Your task to perform on an android device: Open accessibility settings Image 0: 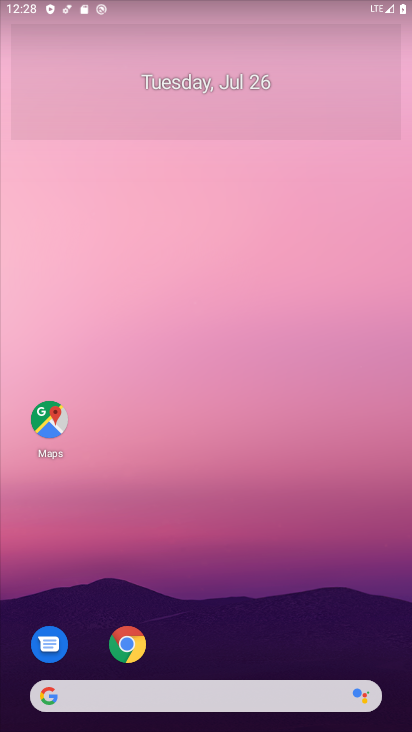
Step 0: drag from (177, 684) to (358, 540)
Your task to perform on an android device: Open accessibility settings Image 1: 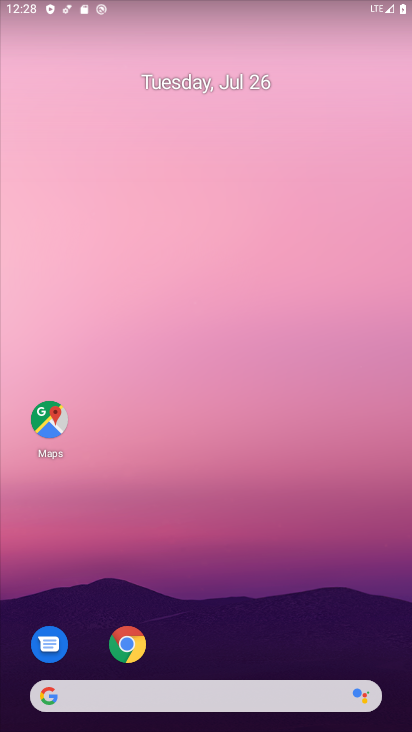
Step 1: drag from (233, 708) to (236, 164)
Your task to perform on an android device: Open accessibility settings Image 2: 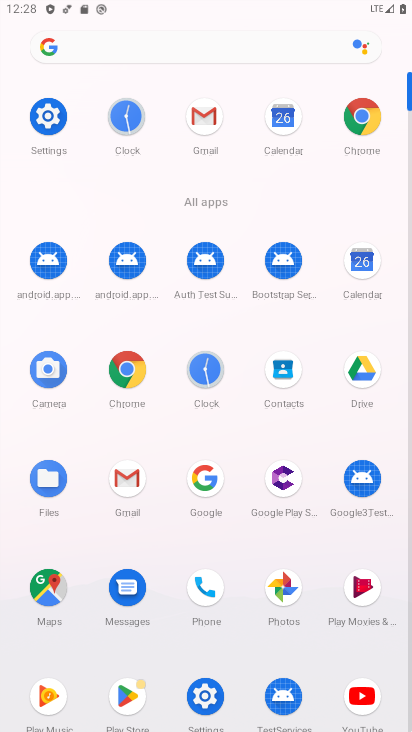
Step 2: click (47, 110)
Your task to perform on an android device: Open accessibility settings Image 3: 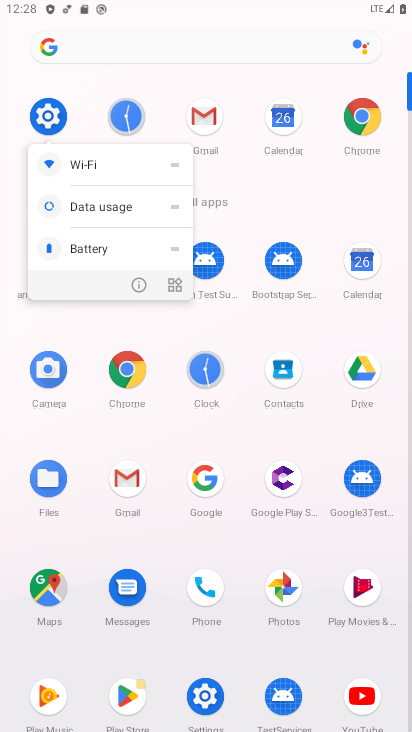
Step 3: click (47, 114)
Your task to perform on an android device: Open accessibility settings Image 4: 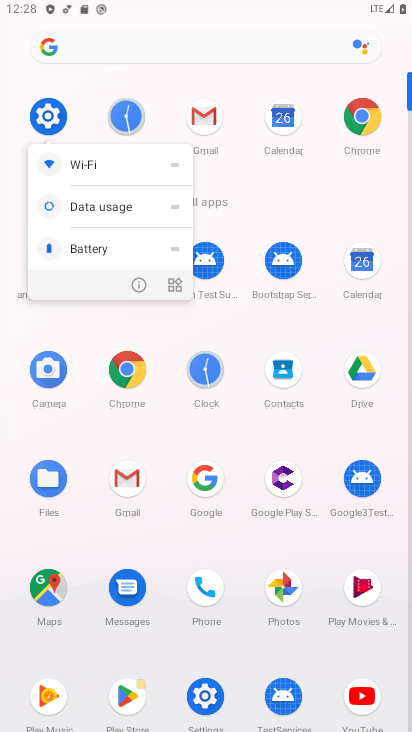
Step 4: click (47, 114)
Your task to perform on an android device: Open accessibility settings Image 5: 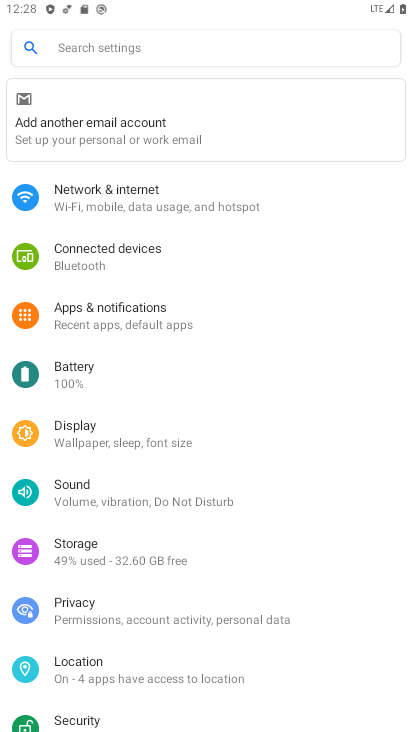
Step 5: drag from (246, 620) to (244, 7)
Your task to perform on an android device: Open accessibility settings Image 6: 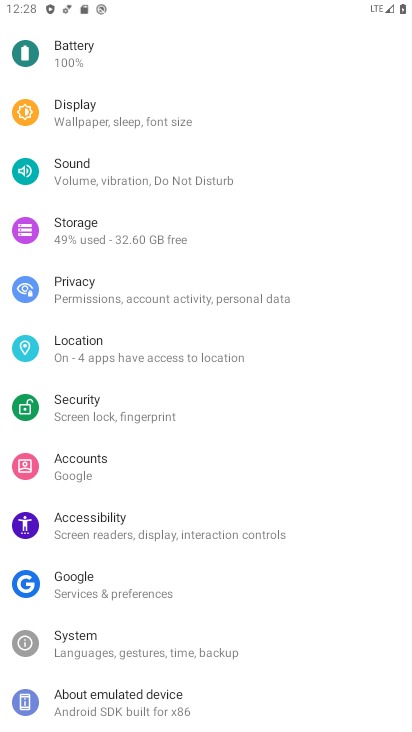
Step 6: click (161, 525)
Your task to perform on an android device: Open accessibility settings Image 7: 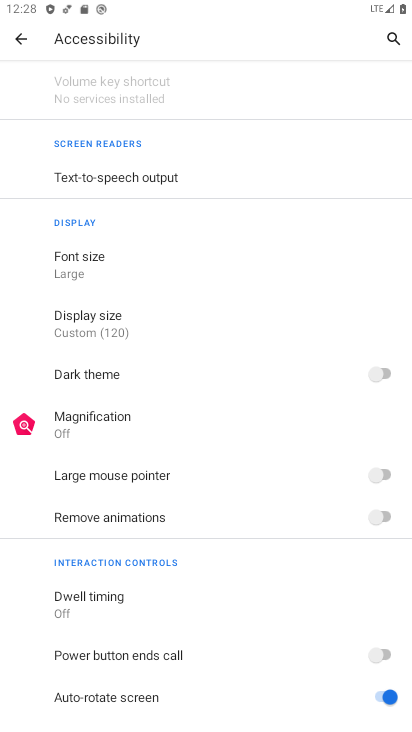
Step 7: task complete